Your task to perform on an android device: Open calendar and show me the first week of next month Image 0: 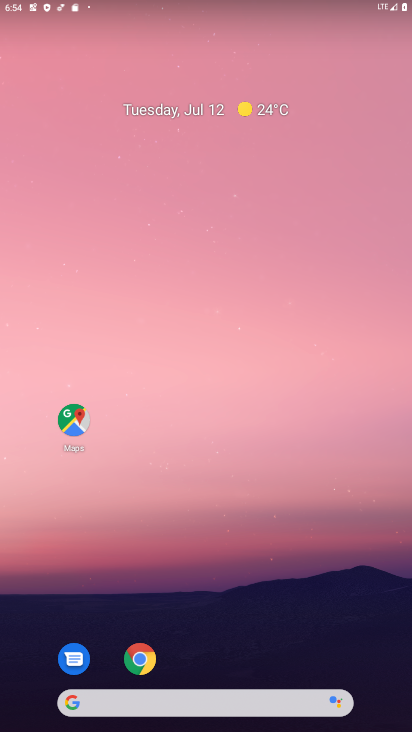
Step 0: drag from (341, 664) to (299, 87)
Your task to perform on an android device: Open calendar and show me the first week of next month Image 1: 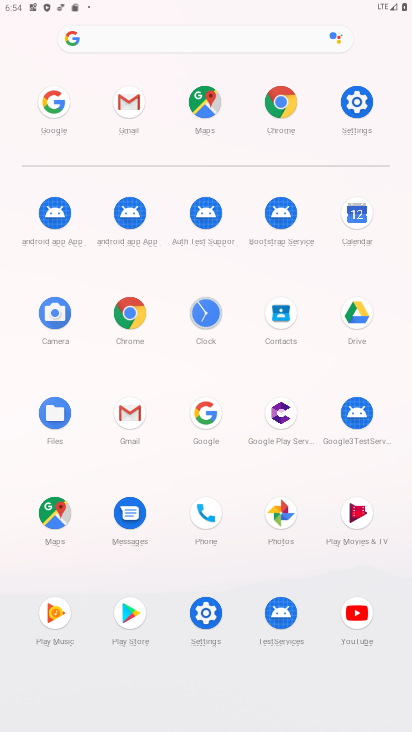
Step 1: click (355, 217)
Your task to perform on an android device: Open calendar and show me the first week of next month Image 2: 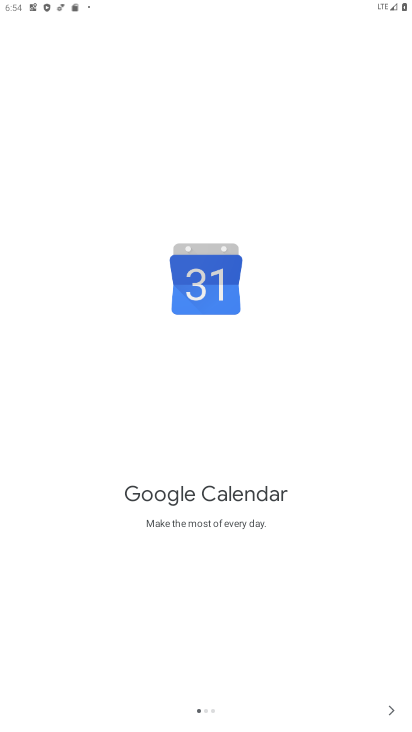
Step 2: click (389, 708)
Your task to perform on an android device: Open calendar and show me the first week of next month Image 3: 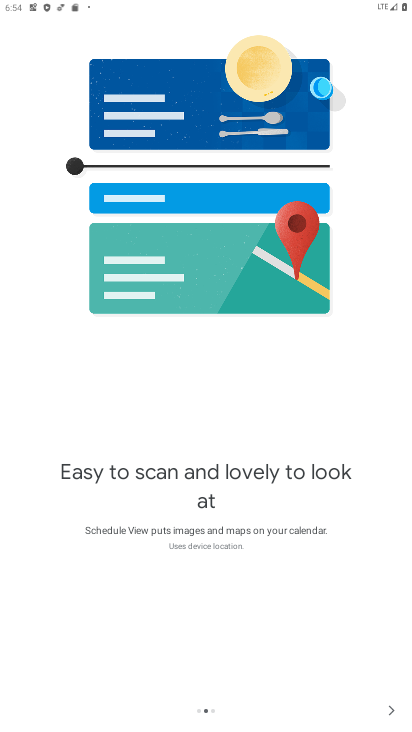
Step 3: click (389, 708)
Your task to perform on an android device: Open calendar and show me the first week of next month Image 4: 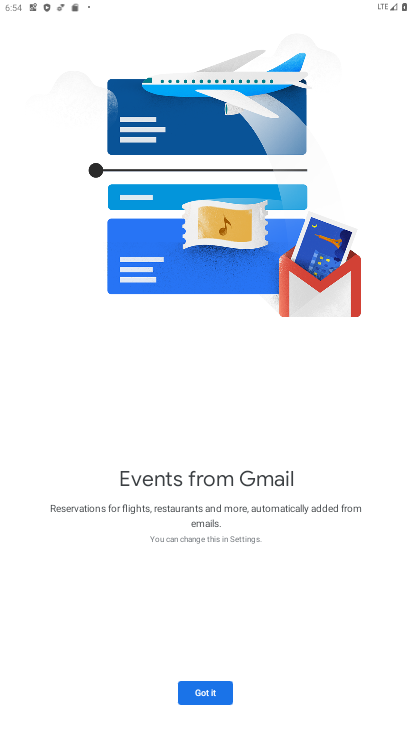
Step 4: click (202, 698)
Your task to perform on an android device: Open calendar and show me the first week of next month Image 5: 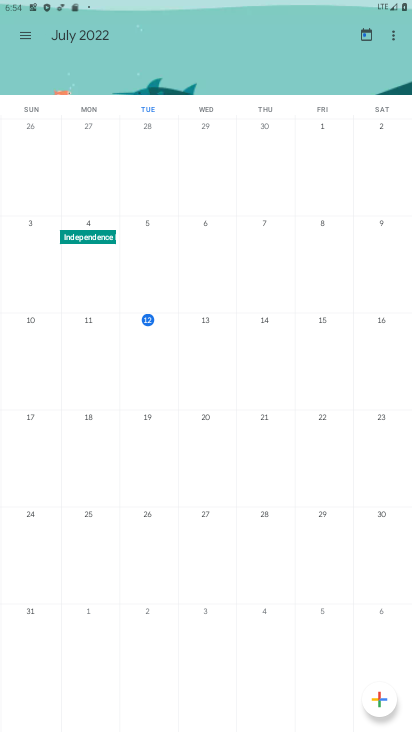
Step 5: drag from (365, 231) to (9, 280)
Your task to perform on an android device: Open calendar and show me the first week of next month Image 6: 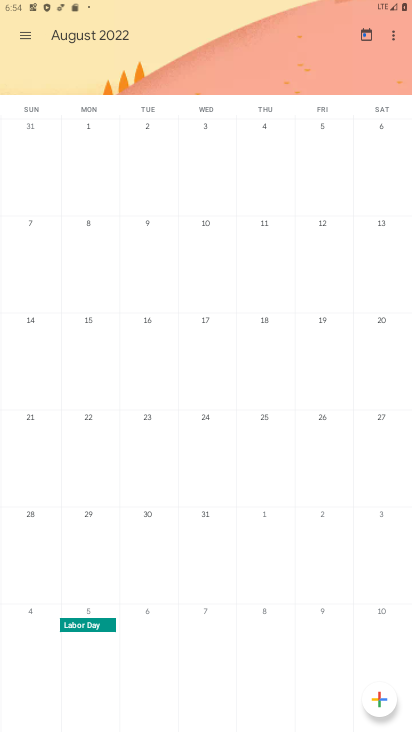
Step 6: click (32, 272)
Your task to perform on an android device: Open calendar and show me the first week of next month Image 7: 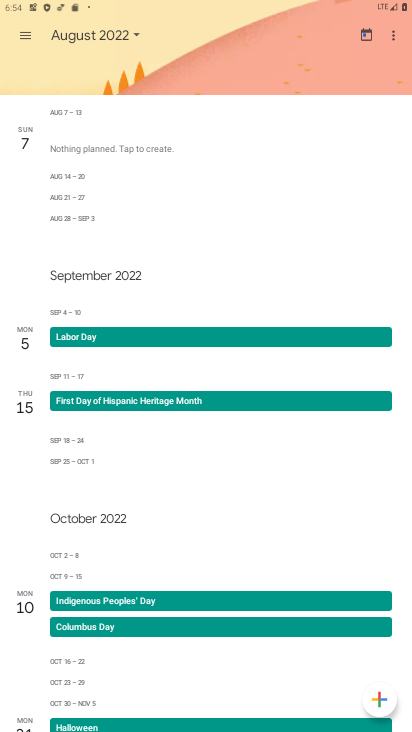
Step 7: task complete